Your task to perform on an android device: Go to privacy settings Image 0: 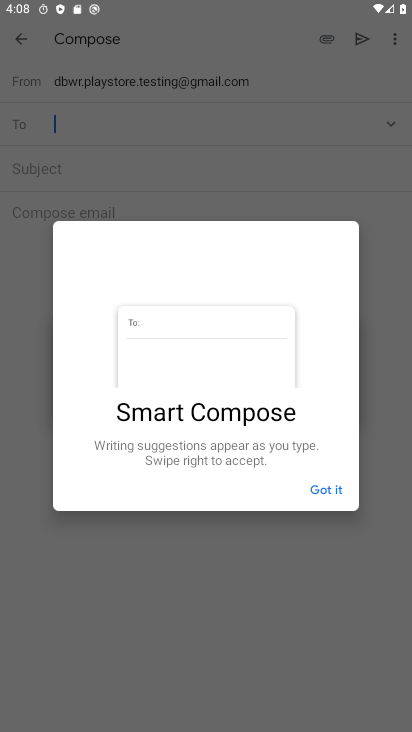
Step 0: press home button
Your task to perform on an android device: Go to privacy settings Image 1: 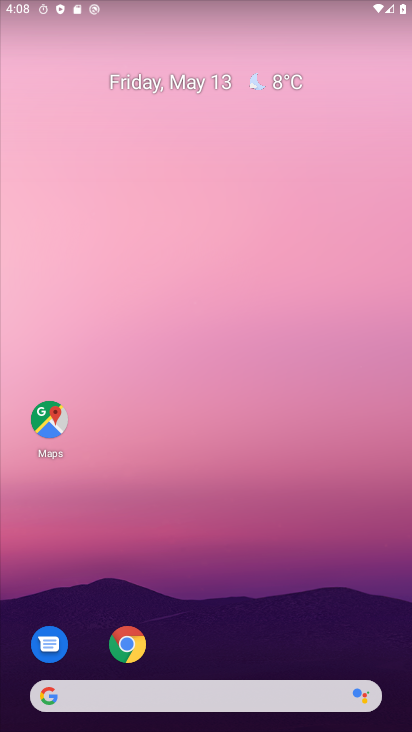
Step 1: drag from (221, 639) to (224, 199)
Your task to perform on an android device: Go to privacy settings Image 2: 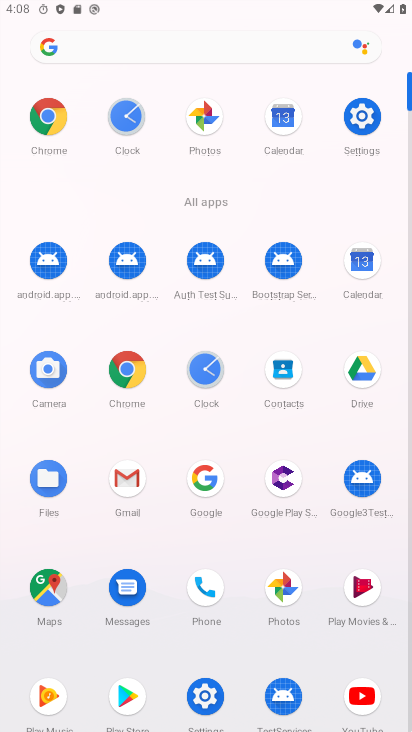
Step 2: click (357, 119)
Your task to perform on an android device: Go to privacy settings Image 3: 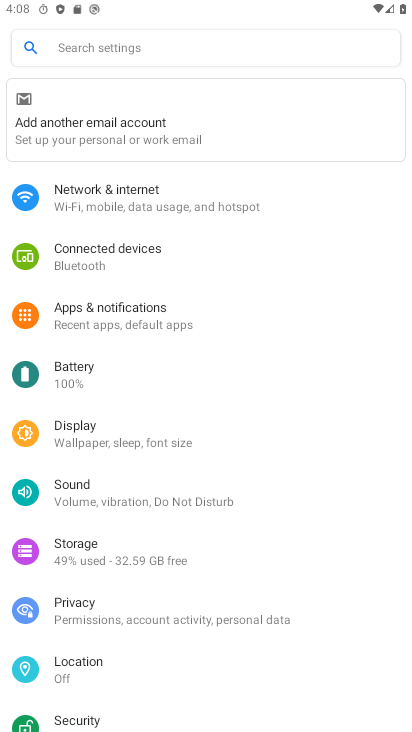
Step 3: click (101, 620)
Your task to perform on an android device: Go to privacy settings Image 4: 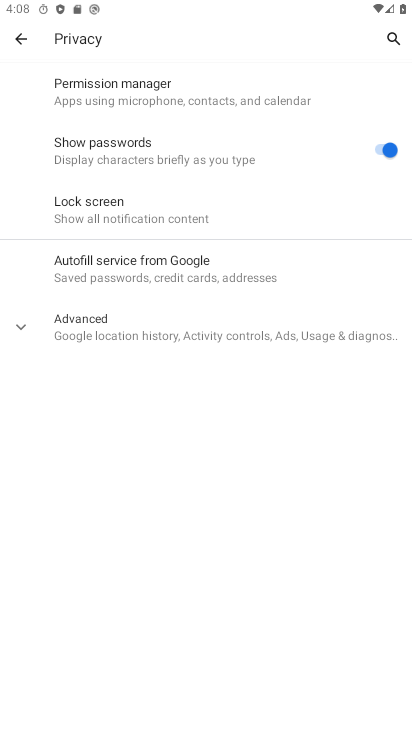
Step 4: task complete